Your task to perform on an android device: change the clock display to show seconds Image 0: 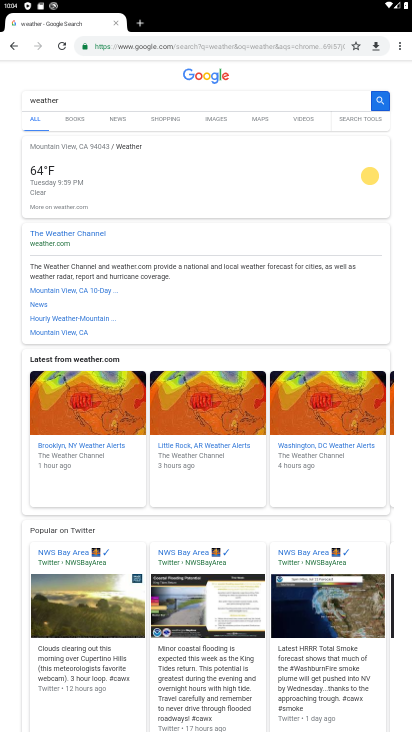
Step 0: press home button
Your task to perform on an android device: change the clock display to show seconds Image 1: 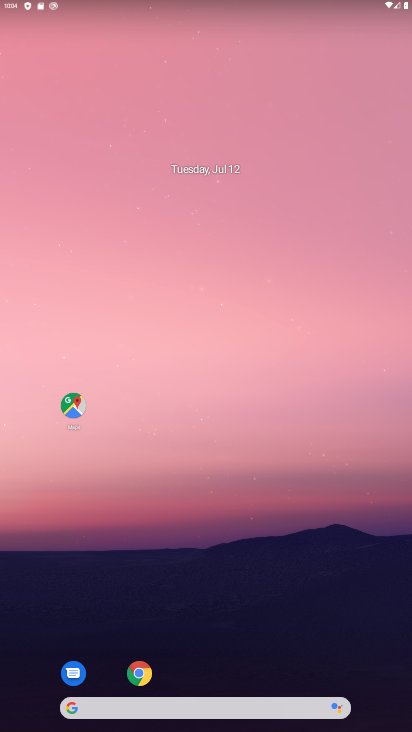
Step 1: drag from (331, 607) to (254, 69)
Your task to perform on an android device: change the clock display to show seconds Image 2: 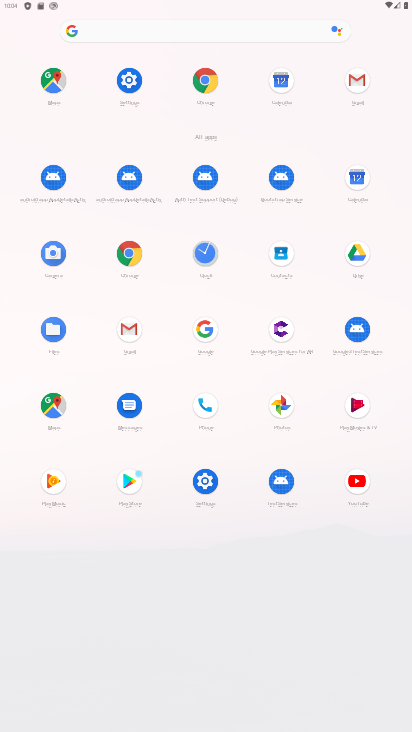
Step 2: click (199, 252)
Your task to perform on an android device: change the clock display to show seconds Image 3: 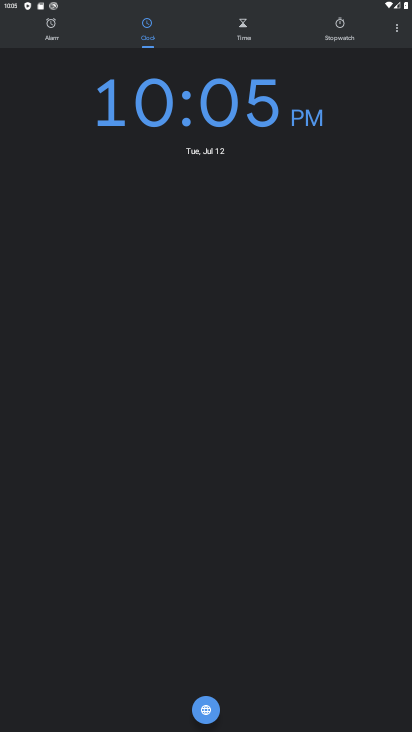
Step 3: click (398, 28)
Your task to perform on an android device: change the clock display to show seconds Image 4: 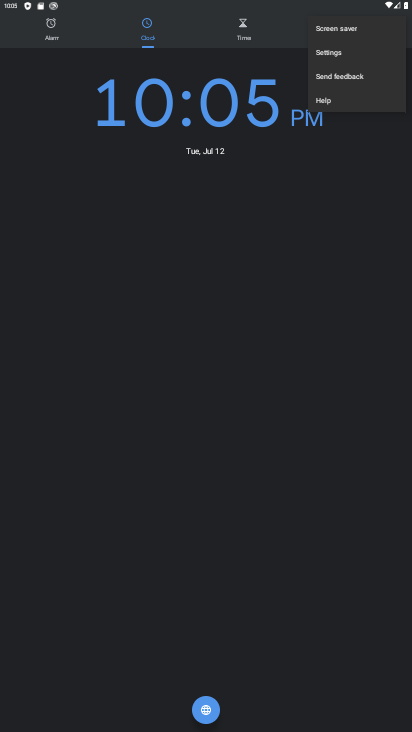
Step 4: click (347, 55)
Your task to perform on an android device: change the clock display to show seconds Image 5: 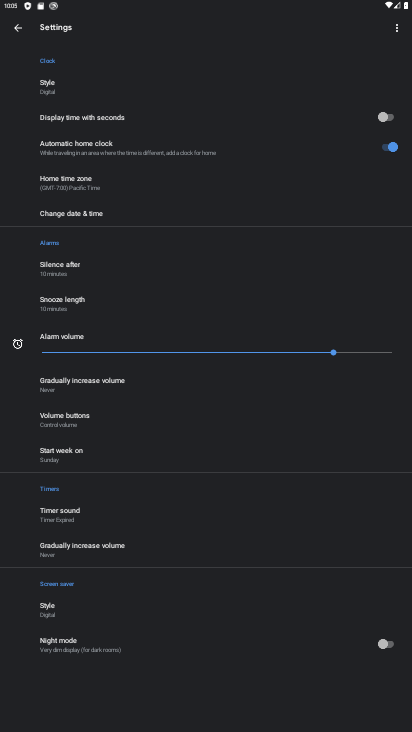
Step 5: click (394, 117)
Your task to perform on an android device: change the clock display to show seconds Image 6: 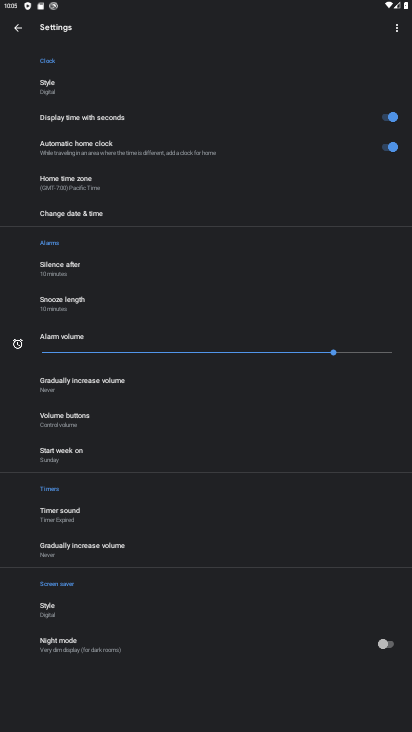
Step 6: task complete